Your task to perform on an android device: What's the weather? Image 0: 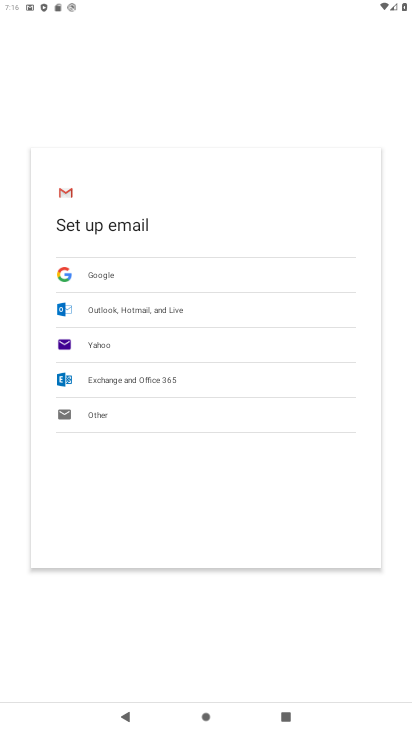
Step 0: press home button
Your task to perform on an android device: What's the weather? Image 1: 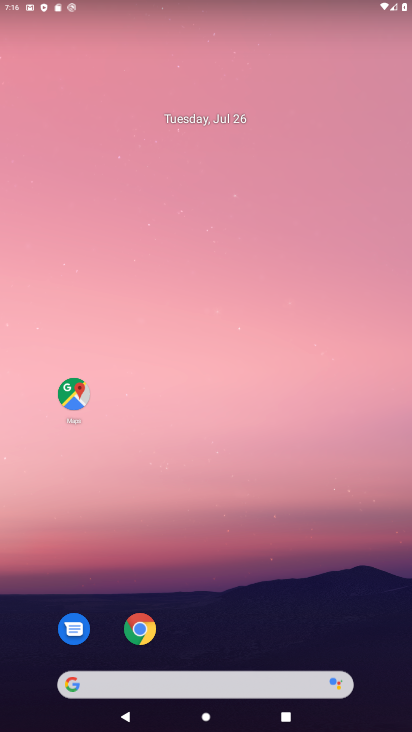
Step 1: click (228, 685)
Your task to perform on an android device: What's the weather? Image 2: 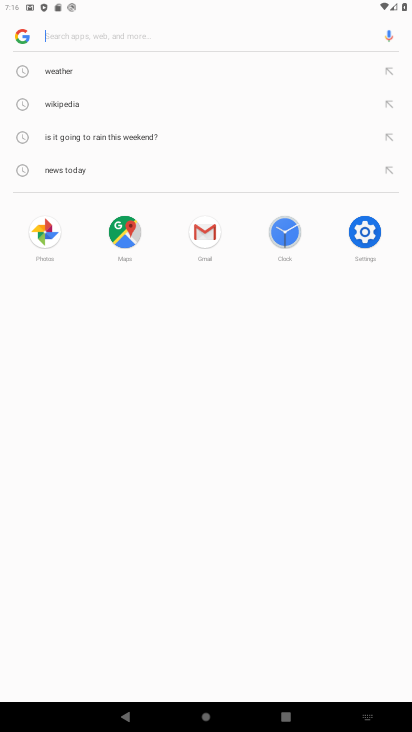
Step 2: click (74, 74)
Your task to perform on an android device: What's the weather? Image 3: 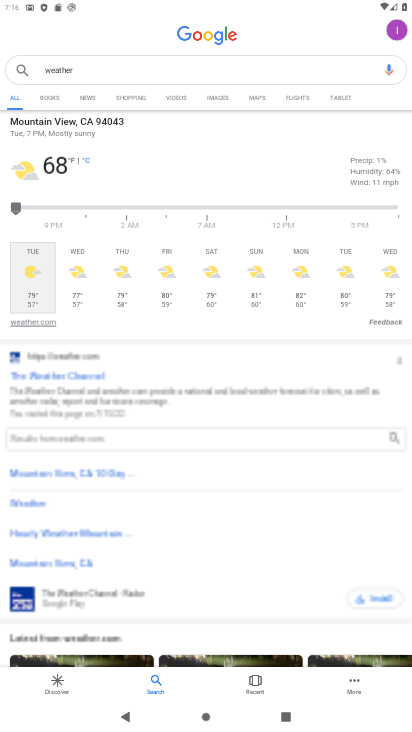
Step 3: task complete